Your task to perform on an android device: Open Amazon Image 0: 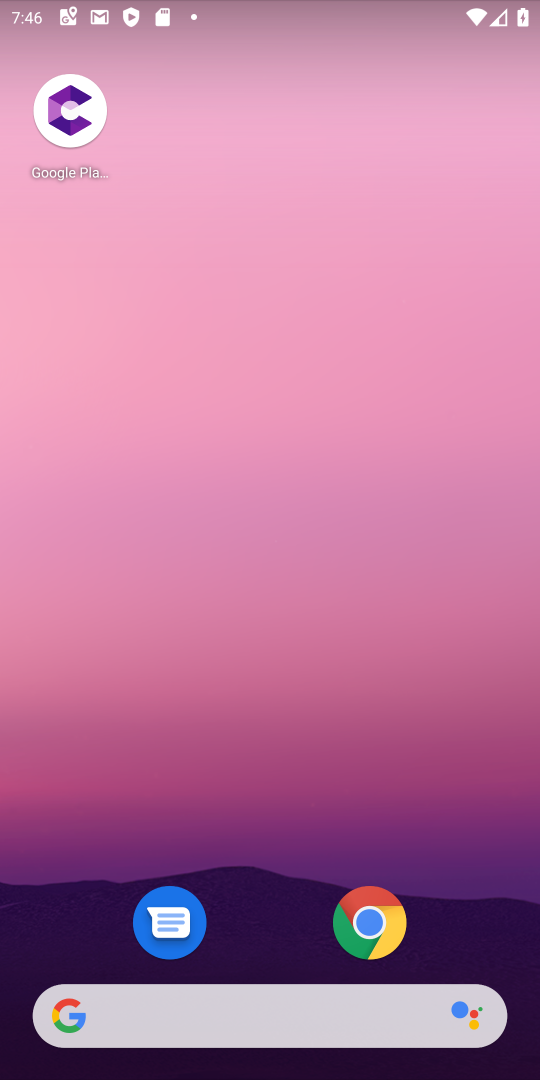
Step 0: click (353, 917)
Your task to perform on an android device: Open Amazon Image 1: 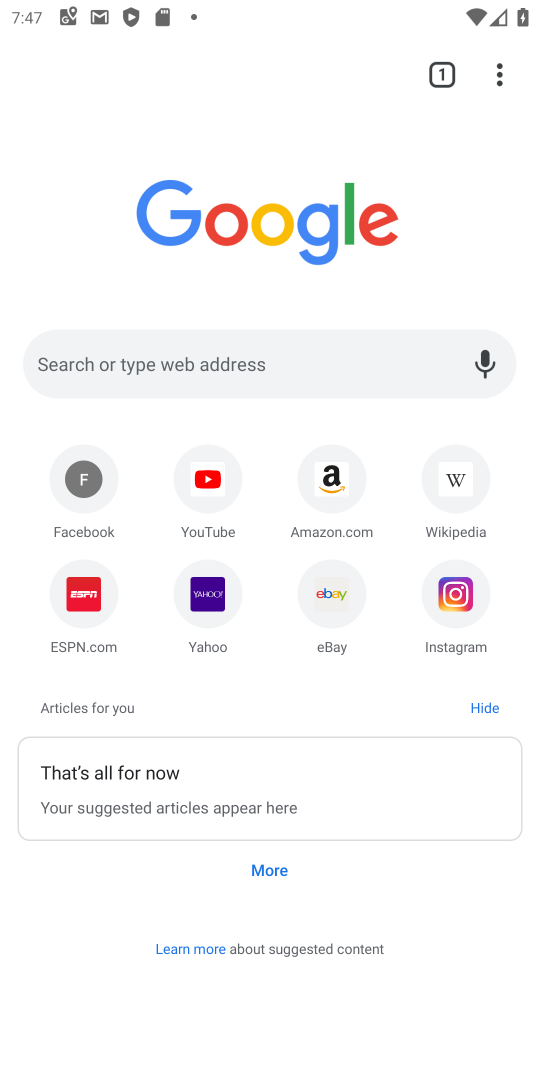
Step 1: click (332, 482)
Your task to perform on an android device: Open Amazon Image 2: 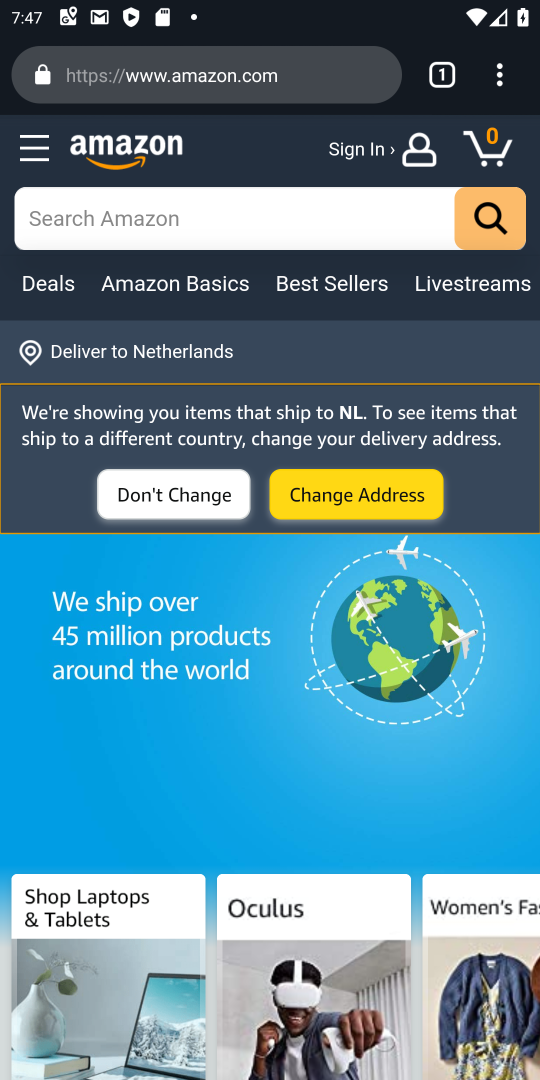
Step 2: task complete